Your task to perform on an android device: turn off sleep mode Image 0: 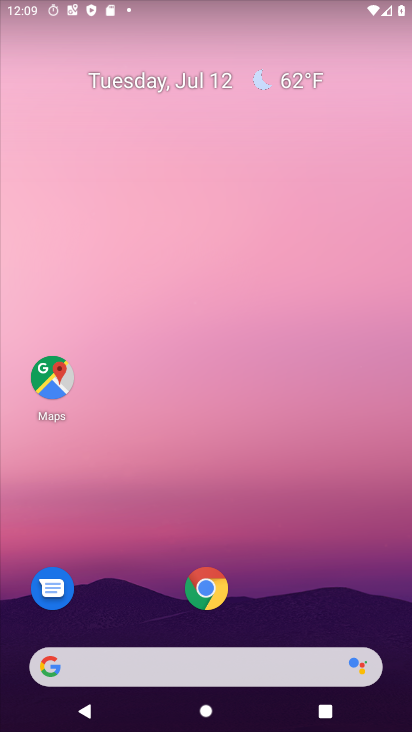
Step 0: click (148, 167)
Your task to perform on an android device: turn off sleep mode Image 1: 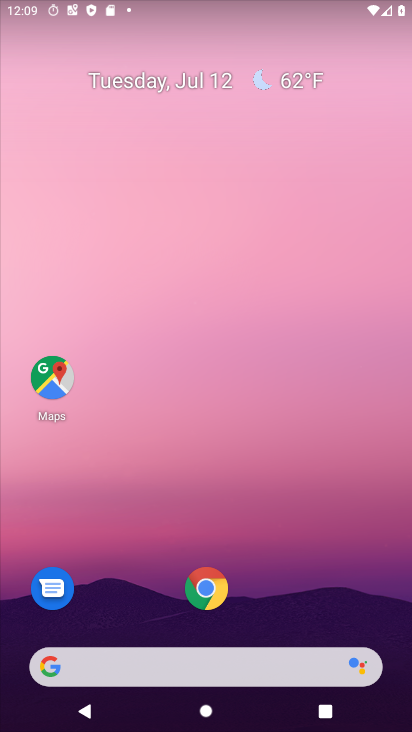
Step 1: drag from (223, 471) to (182, 177)
Your task to perform on an android device: turn off sleep mode Image 2: 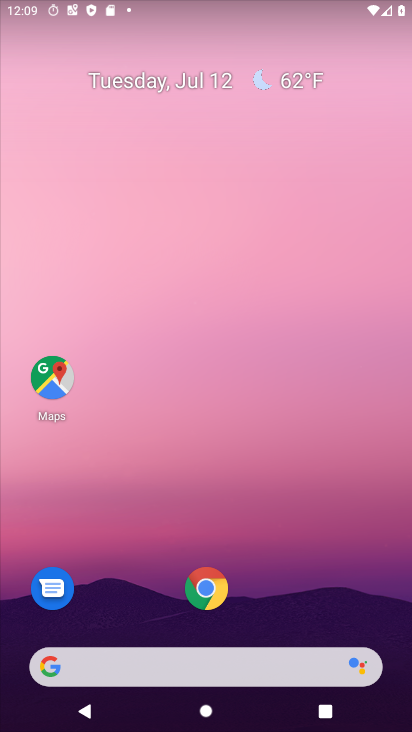
Step 2: drag from (222, 627) to (222, 51)
Your task to perform on an android device: turn off sleep mode Image 3: 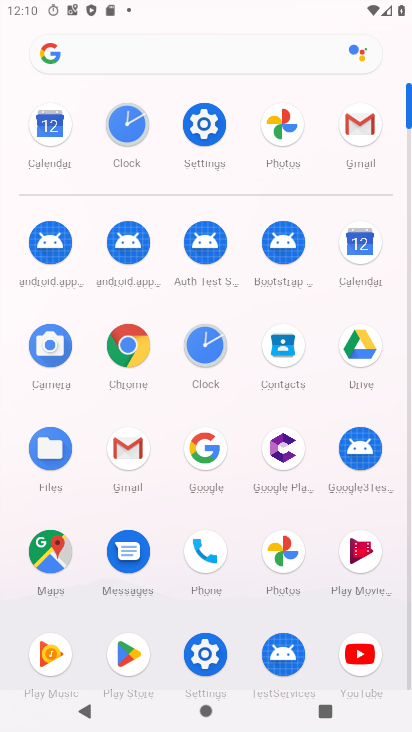
Step 3: click (203, 130)
Your task to perform on an android device: turn off sleep mode Image 4: 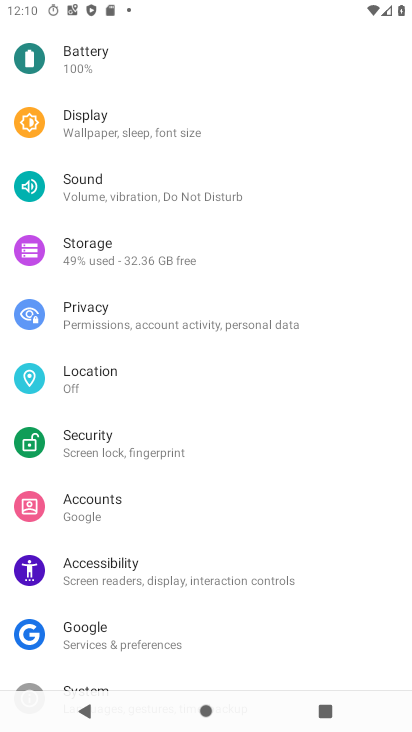
Step 4: task complete